Your task to perform on an android device: open a bookmark in the chrome app Image 0: 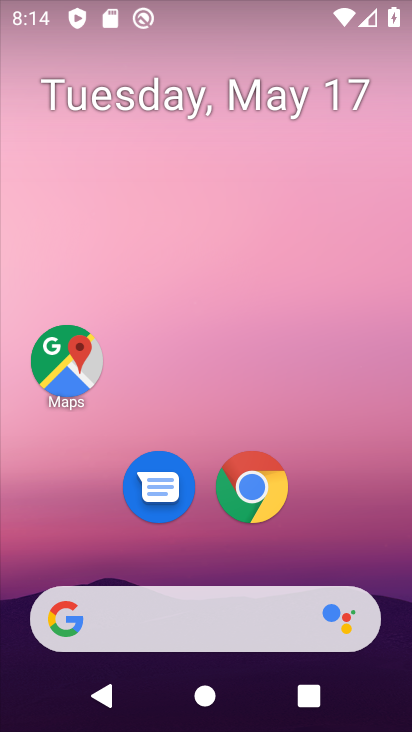
Step 0: drag from (293, 650) to (224, 260)
Your task to perform on an android device: open a bookmark in the chrome app Image 1: 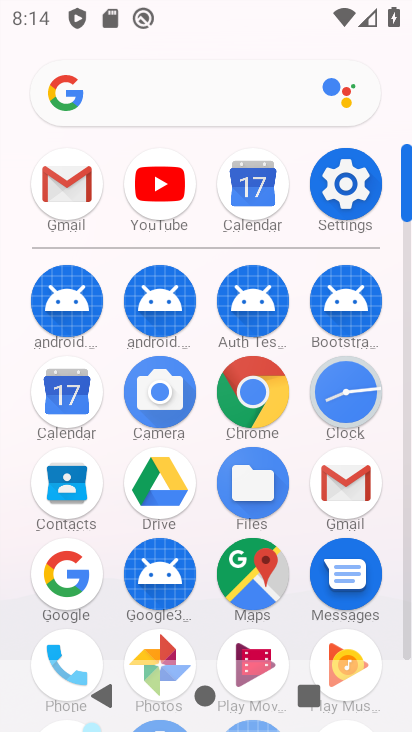
Step 1: click (235, 397)
Your task to perform on an android device: open a bookmark in the chrome app Image 2: 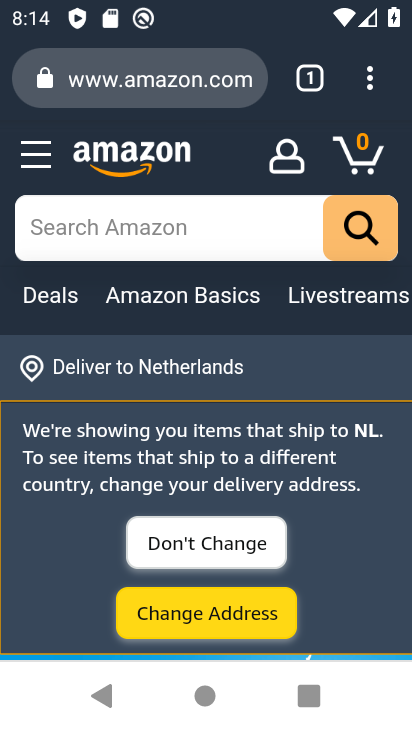
Step 2: click (374, 91)
Your task to perform on an android device: open a bookmark in the chrome app Image 3: 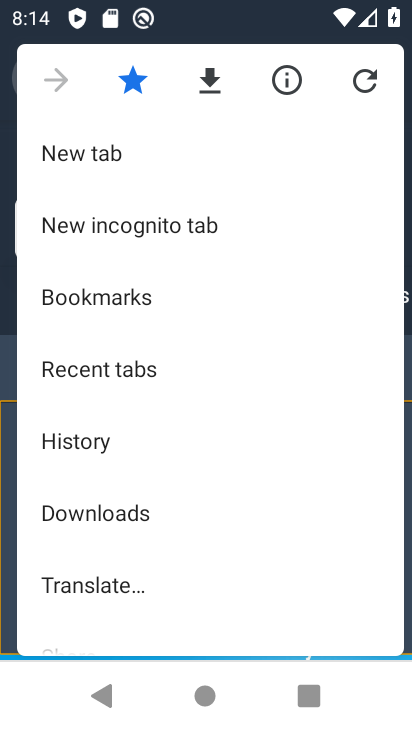
Step 3: click (105, 296)
Your task to perform on an android device: open a bookmark in the chrome app Image 4: 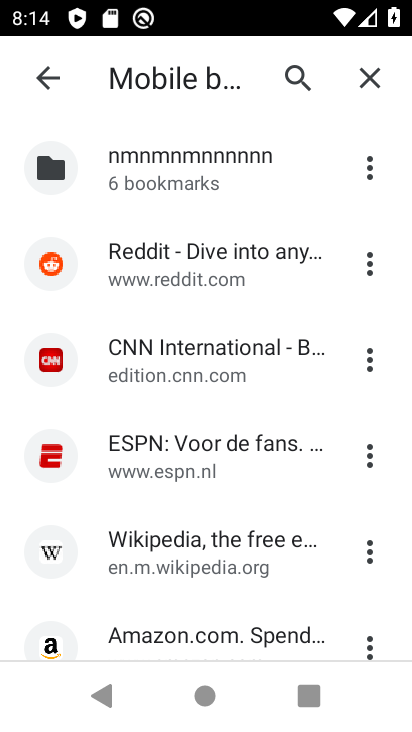
Step 4: click (109, 536)
Your task to perform on an android device: open a bookmark in the chrome app Image 5: 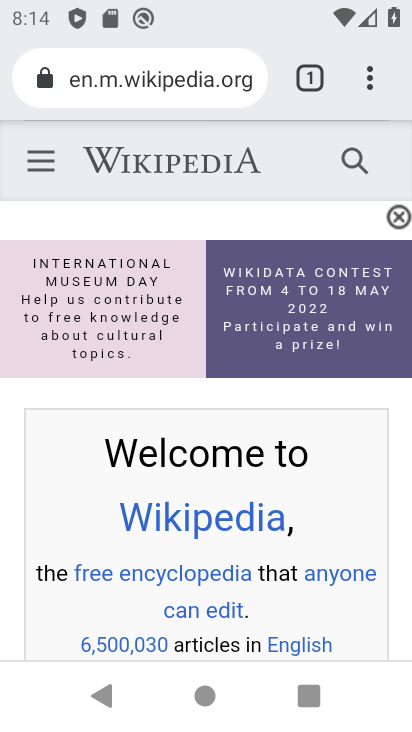
Step 5: task complete